Your task to perform on an android device: turn off translation in the chrome app Image 0: 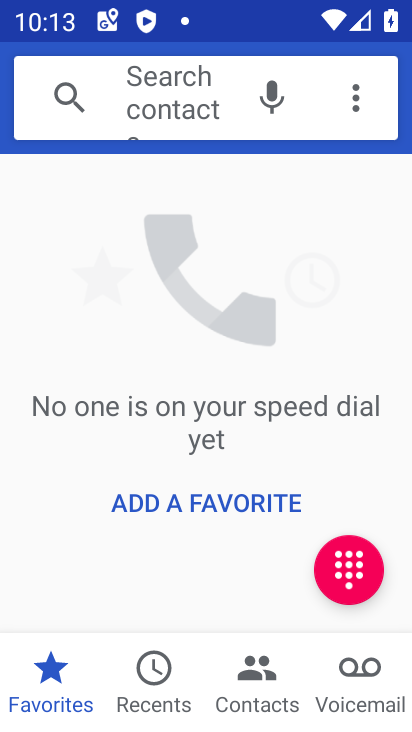
Step 0: press home button
Your task to perform on an android device: turn off translation in the chrome app Image 1: 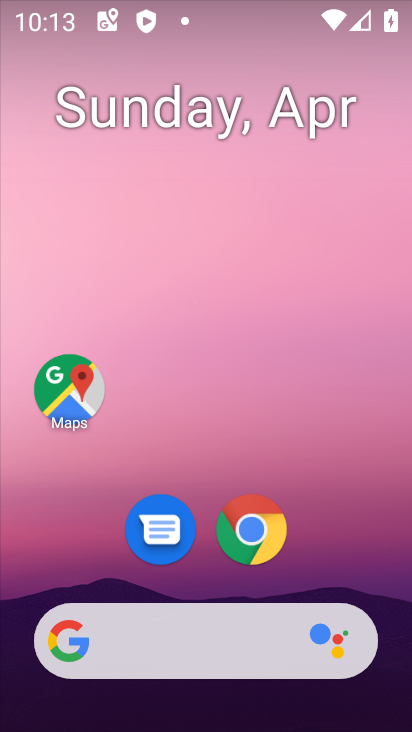
Step 1: click (248, 540)
Your task to perform on an android device: turn off translation in the chrome app Image 2: 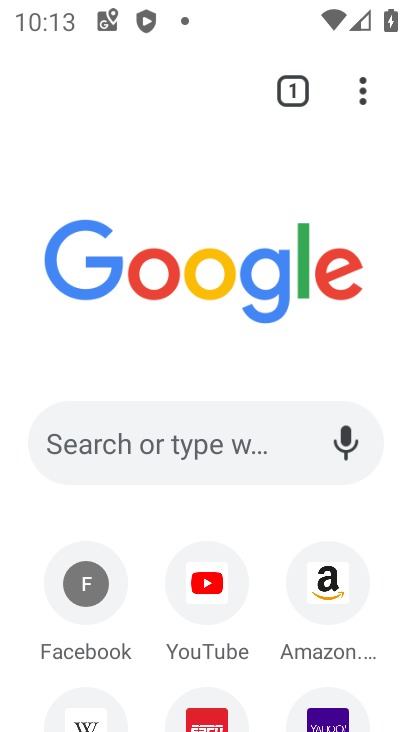
Step 2: click (358, 86)
Your task to perform on an android device: turn off translation in the chrome app Image 3: 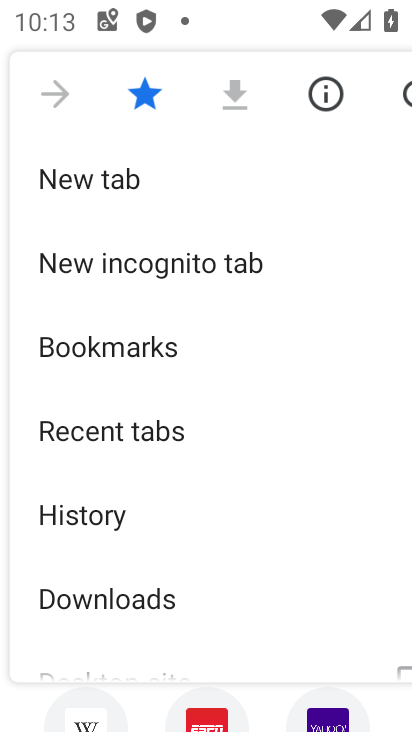
Step 3: drag from (221, 454) to (289, 191)
Your task to perform on an android device: turn off translation in the chrome app Image 4: 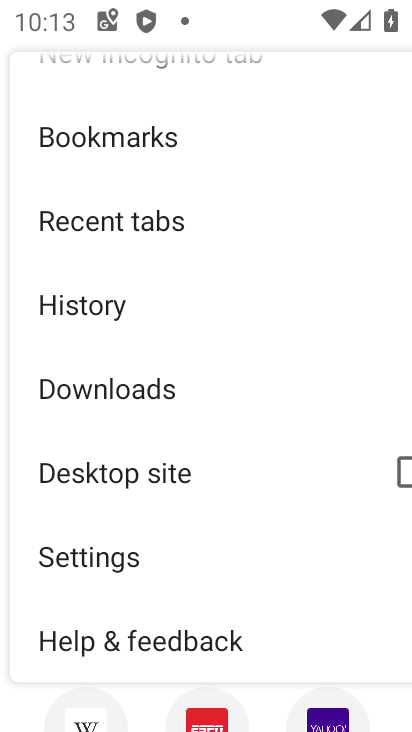
Step 4: click (166, 558)
Your task to perform on an android device: turn off translation in the chrome app Image 5: 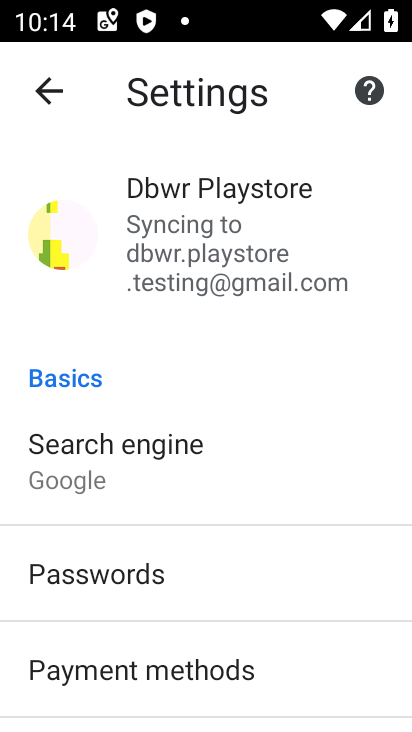
Step 5: drag from (206, 665) to (289, 261)
Your task to perform on an android device: turn off translation in the chrome app Image 6: 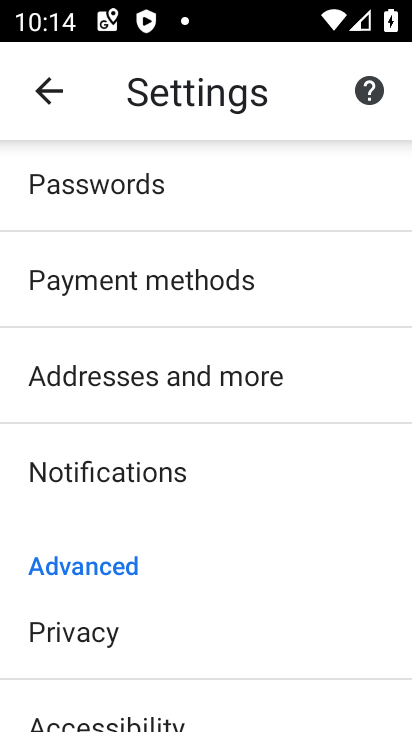
Step 6: drag from (197, 624) to (268, 205)
Your task to perform on an android device: turn off translation in the chrome app Image 7: 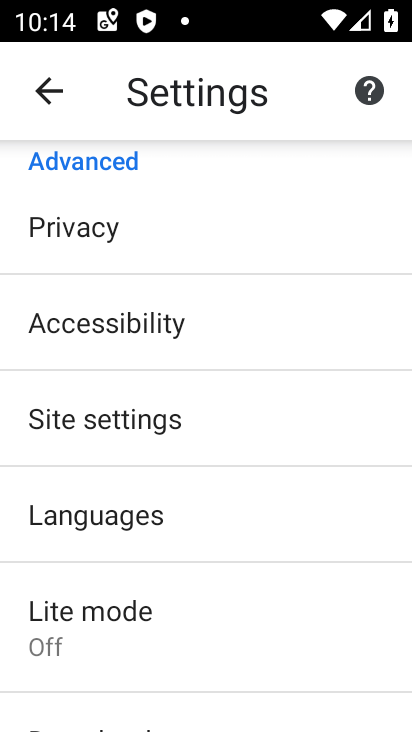
Step 7: click (169, 509)
Your task to perform on an android device: turn off translation in the chrome app Image 8: 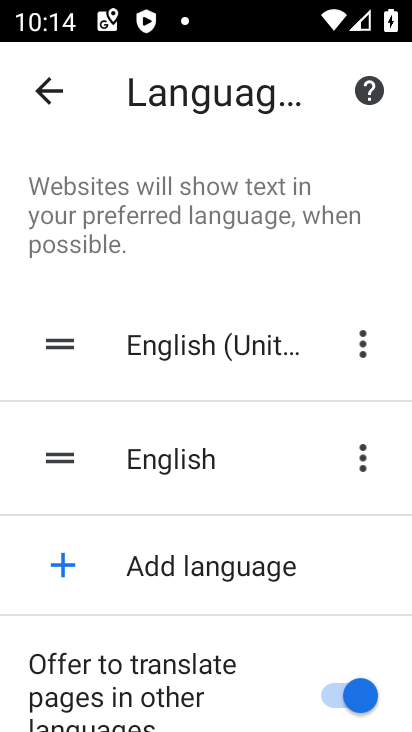
Step 8: click (352, 703)
Your task to perform on an android device: turn off translation in the chrome app Image 9: 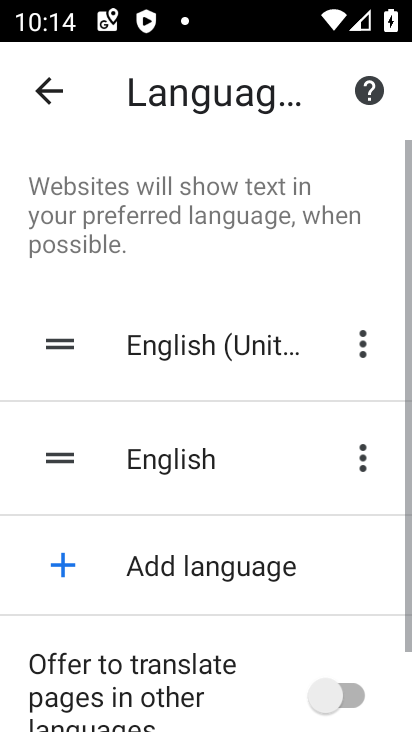
Step 9: task complete